Your task to perform on an android device: check storage Image 0: 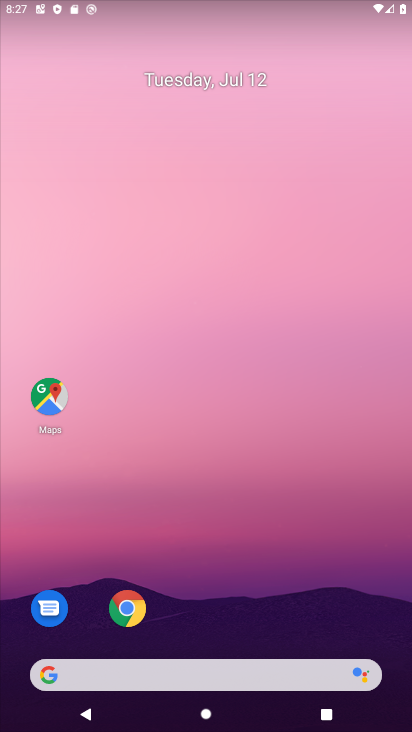
Step 0: drag from (217, 6) to (350, 548)
Your task to perform on an android device: check storage Image 1: 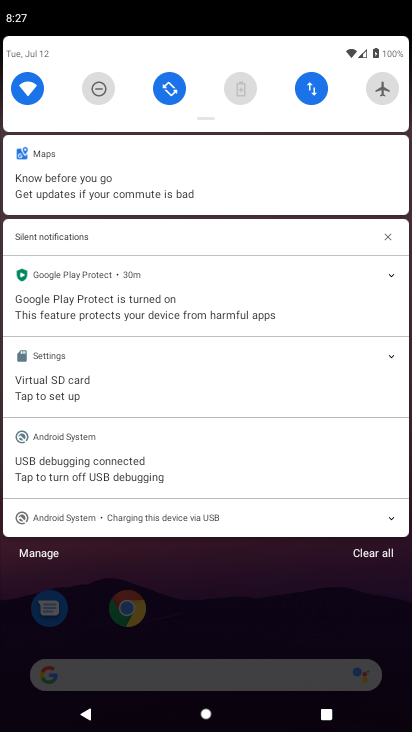
Step 1: drag from (246, 69) to (298, 426)
Your task to perform on an android device: check storage Image 2: 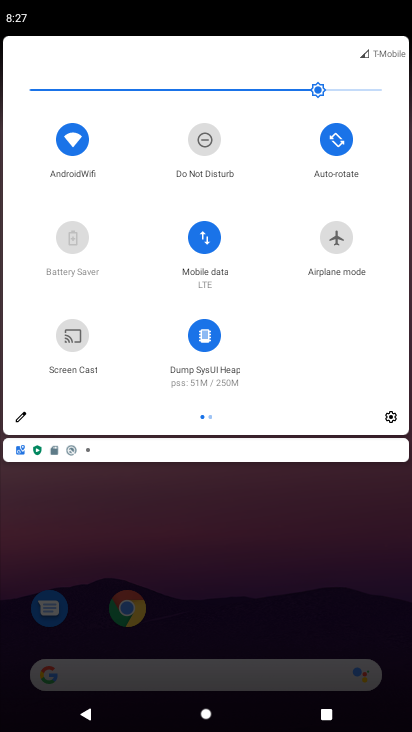
Step 2: click (387, 423)
Your task to perform on an android device: check storage Image 3: 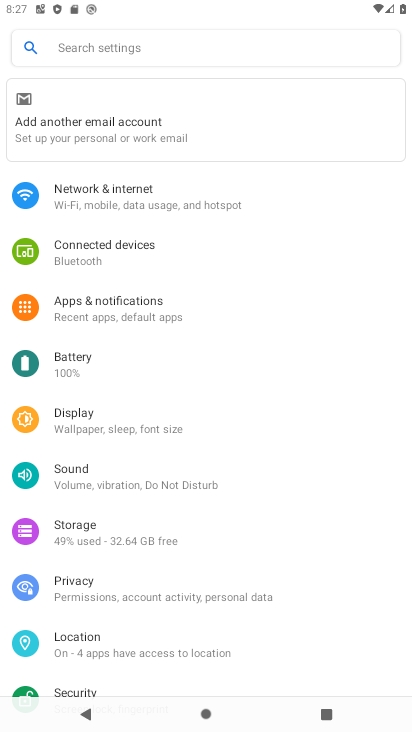
Step 3: click (132, 542)
Your task to perform on an android device: check storage Image 4: 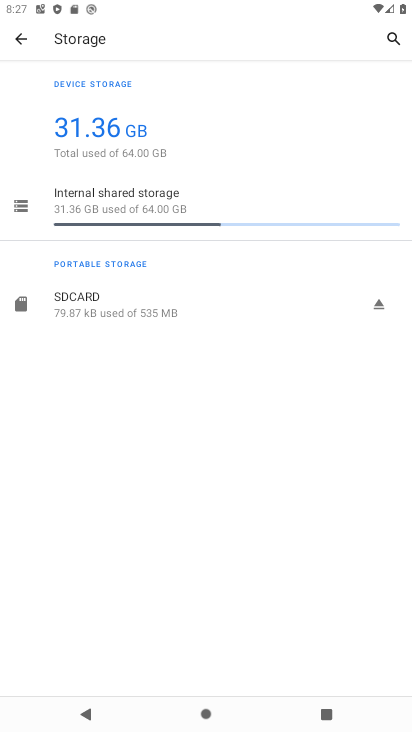
Step 4: task complete